Your task to perform on an android device: toggle airplane mode Image 0: 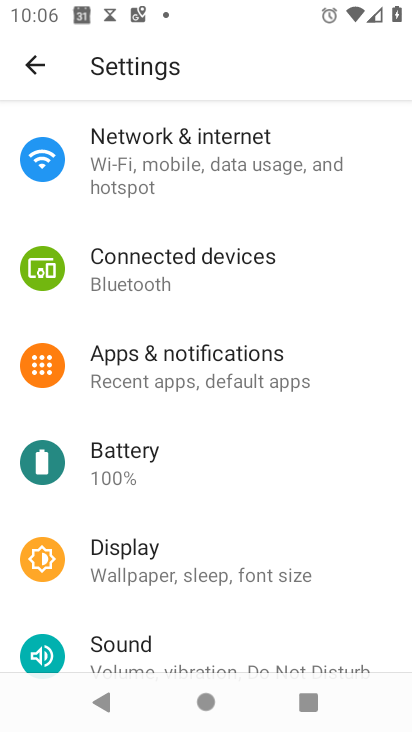
Step 0: drag from (362, 5) to (327, 422)
Your task to perform on an android device: toggle airplane mode Image 1: 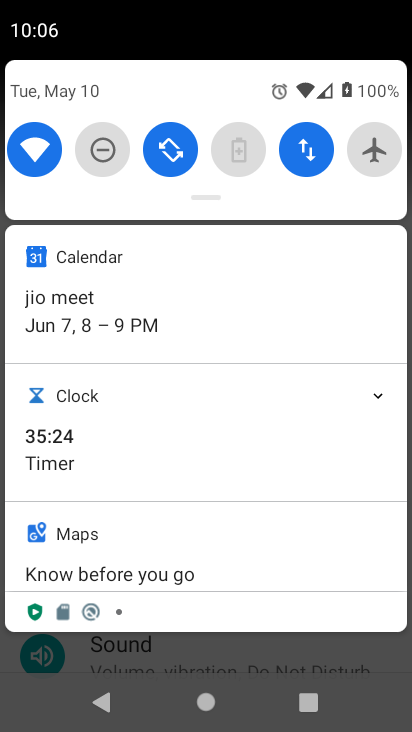
Step 1: click (374, 154)
Your task to perform on an android device: toggle airplane mode Image 2: 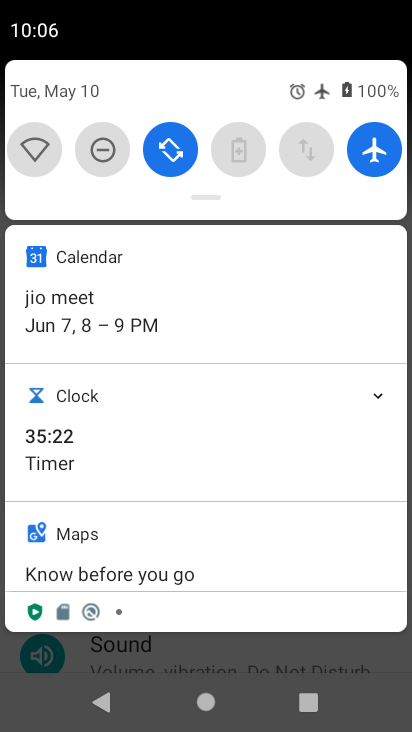
Step 2: task complete